Your task to perform on an android device: Show the shopping cart on amazon.com. Add "jbl charge 4" to the cart on amazon.com, then select checkout. Image 0: 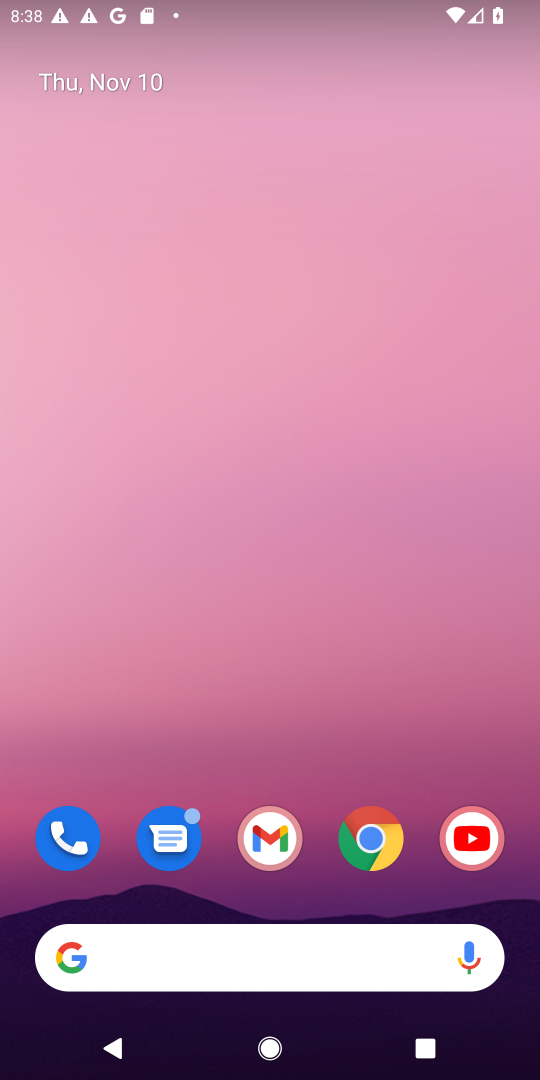
Step 0: drag from (316, 894) to (271, 87)
Your task to perform on an android device: Show the shopping cart on amazon.com. Add "jbl charge 4" to the cart on amazon.com, then select checkout. Image 1: 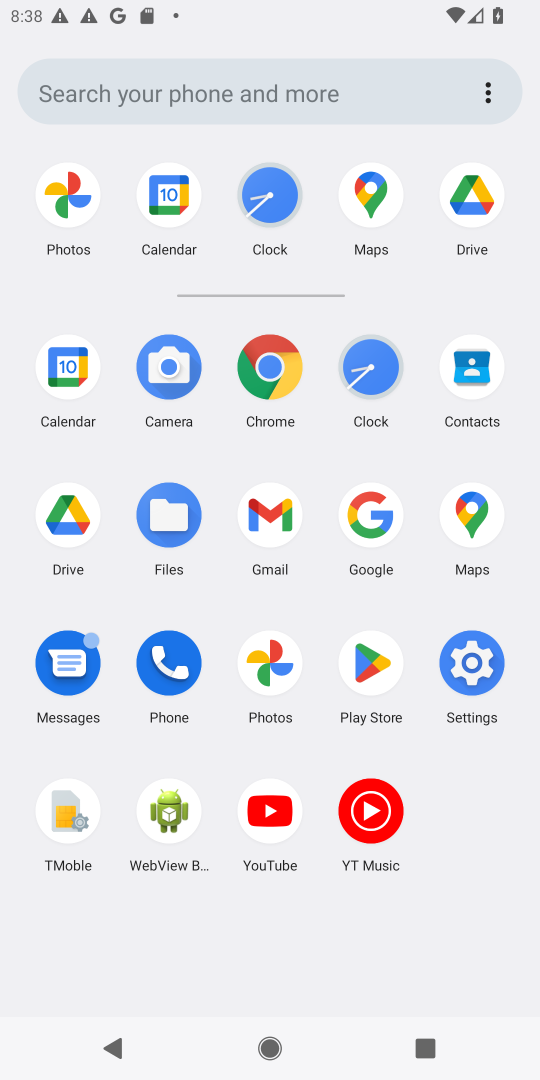
Step 1: click (275, 360)
Your task to perform on an android device: Show the shopping cart on amazon.com. Add "jbl charge 4" to the cart on amazon.com, then select checkout. Image 2: 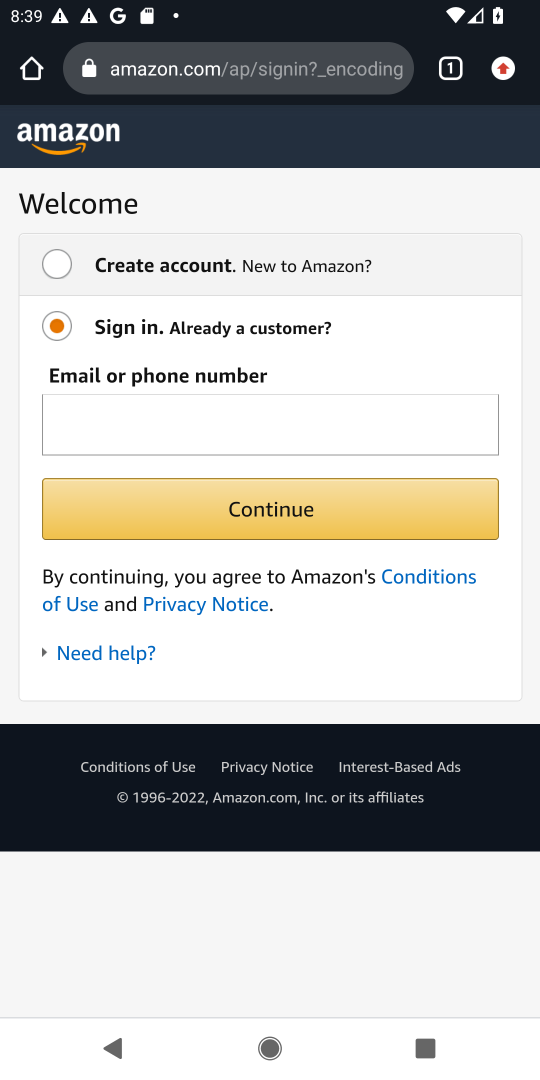
Step 2: click (281, 70)
Your task to perform on an android device: Show the shopping cart on amazon.com. Add "jbl charge 4" to the cart on amazon.com, then select checkout. Image 3: 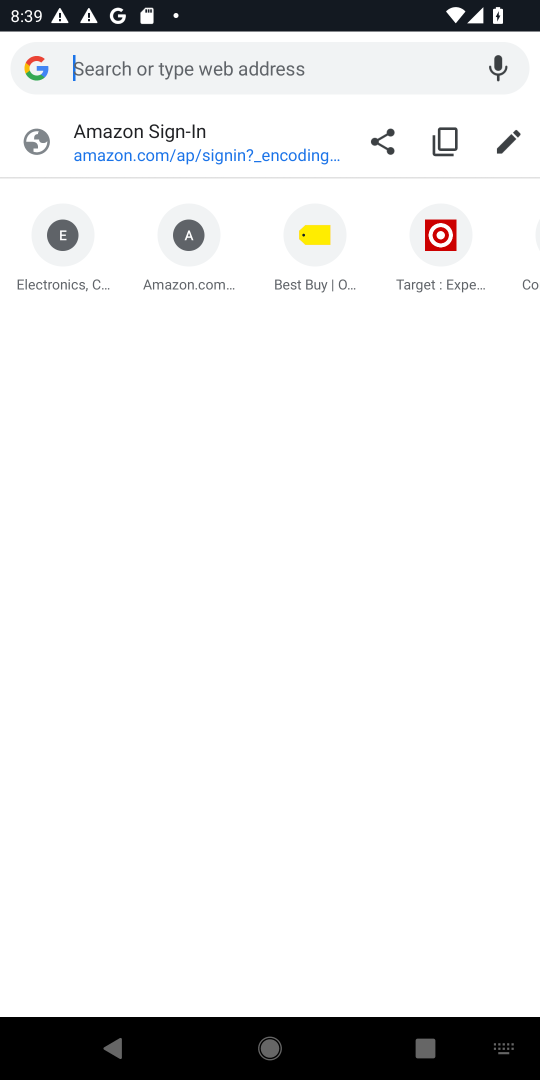
Step 3: type "amazon.com"
Your task to perform on an android device: Show the shopping cart on amazon.com. Add "jbl charge 4" to the cart on amazon.com, then select checkout. Image 4: 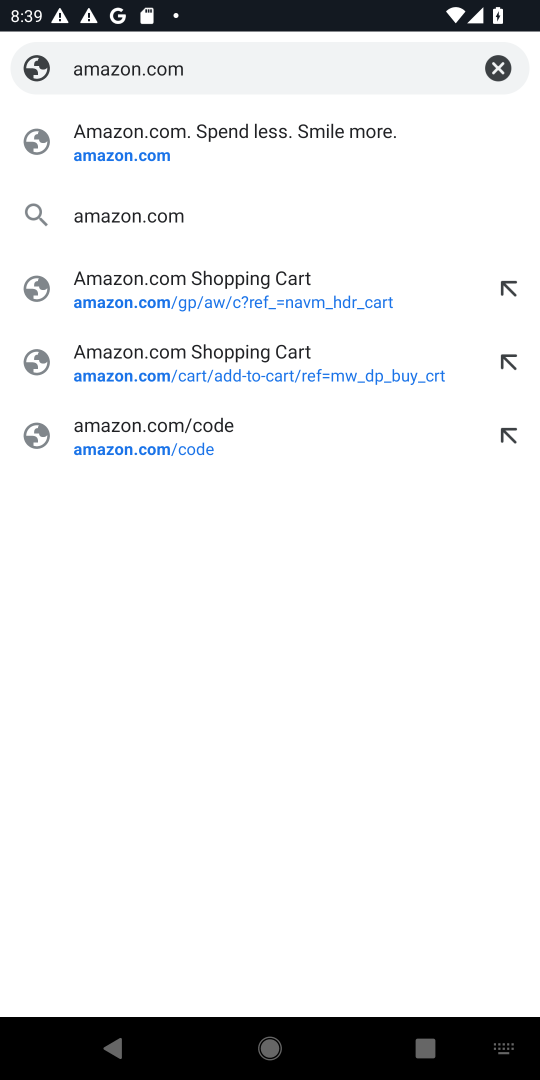
Step 4: press enter
Your task to perform on an android device: Show the shopping cart on amazon.com. Add "jbl charge 4" to the cart on amazon.com, then select checkout. Image 5: 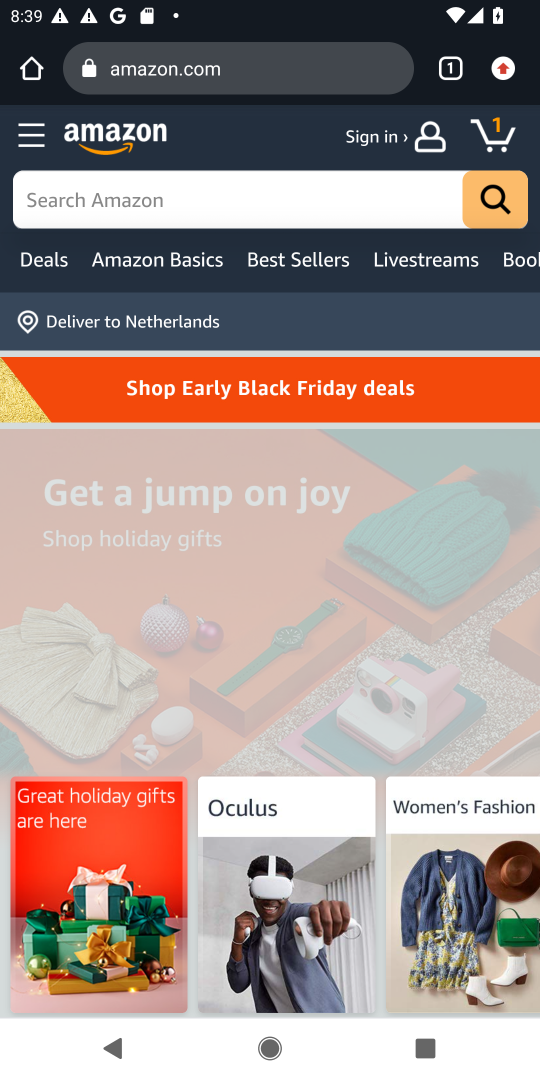
Step 5: click (502, 132)
Your task to perform on an android device: Show the shopping cart on amazon.com. Add "jbl charge 4" to the cart on amazon.com, then select checkout. Image 6: 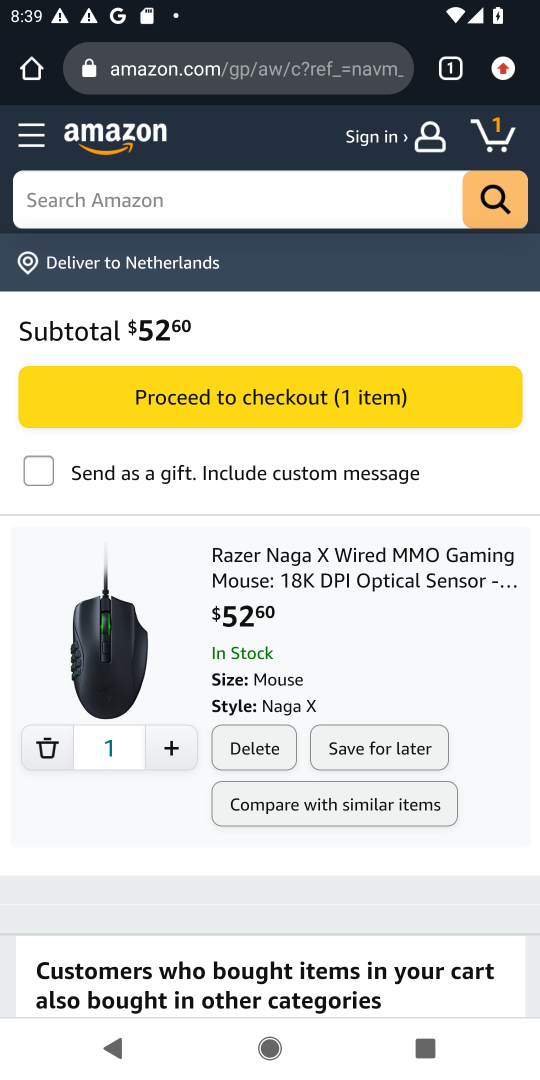
Step 6: click (353, 197)
Your task to perform on an android device: Show the shopping cart on amazon.com. Add "jbl charge 4" to the cart on amazon.com, then select checkout. Image 7: 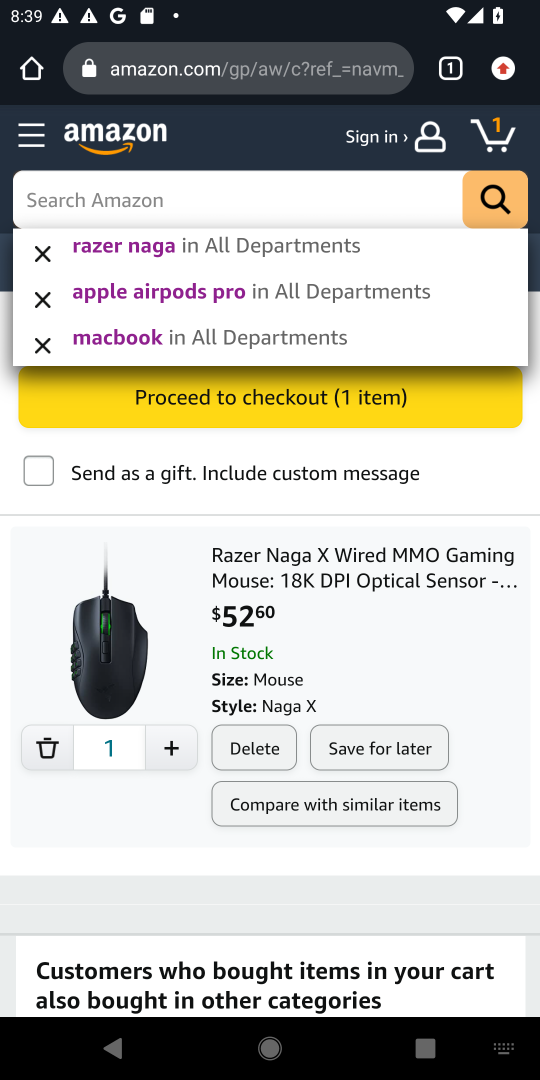
Step 7: type "jbl charge 4"
Your task to perform on an android device: Show the shopping cart on amazon.com. Add "jbl charge 4" to the cart on amazon.com, then select checkout. Image 8: 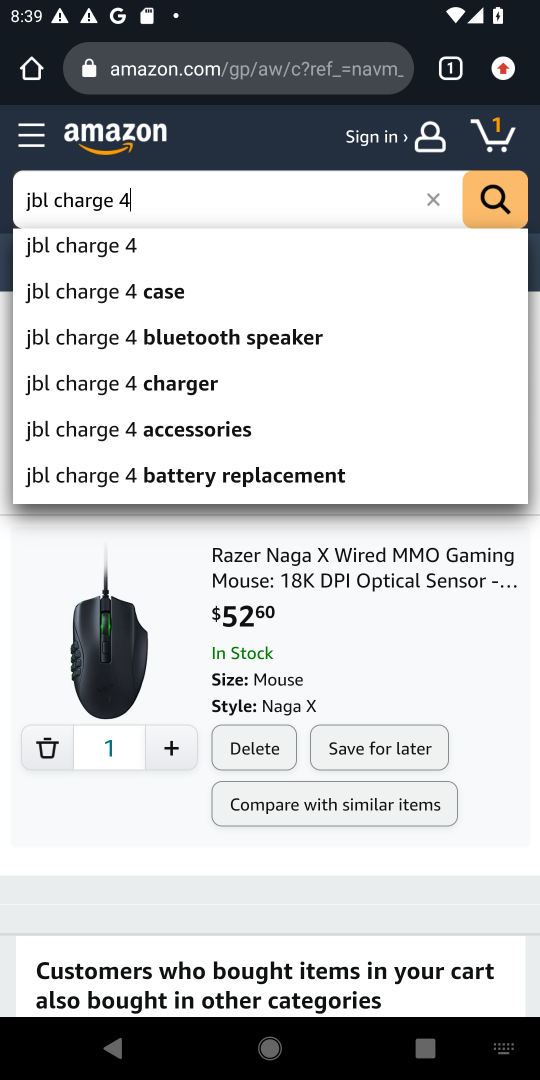
Step 8: press enter
Your task to perform on an android device: Show the shopping cart on amazon.com. Add "jbl charge 4" to the cart on amazon.com, then select checkout. Image 9: 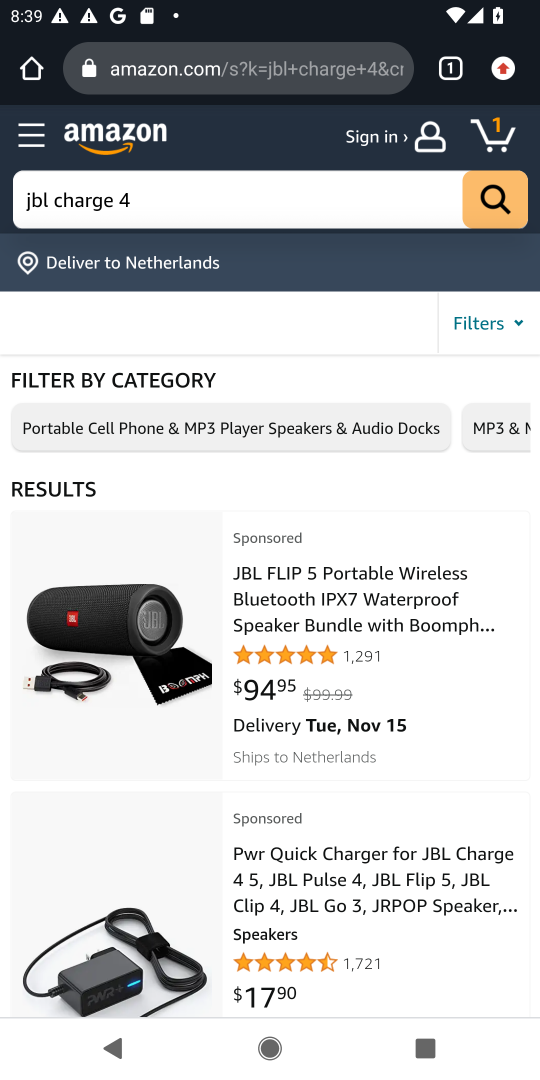
Step 9: drag from (270, 922) to (255, 359)
Your task to perform on an android device: Show the shopping cart on amazon.com. Add "jbl charge 4" to the cart on amazon.com, then select checkout. Image 10: 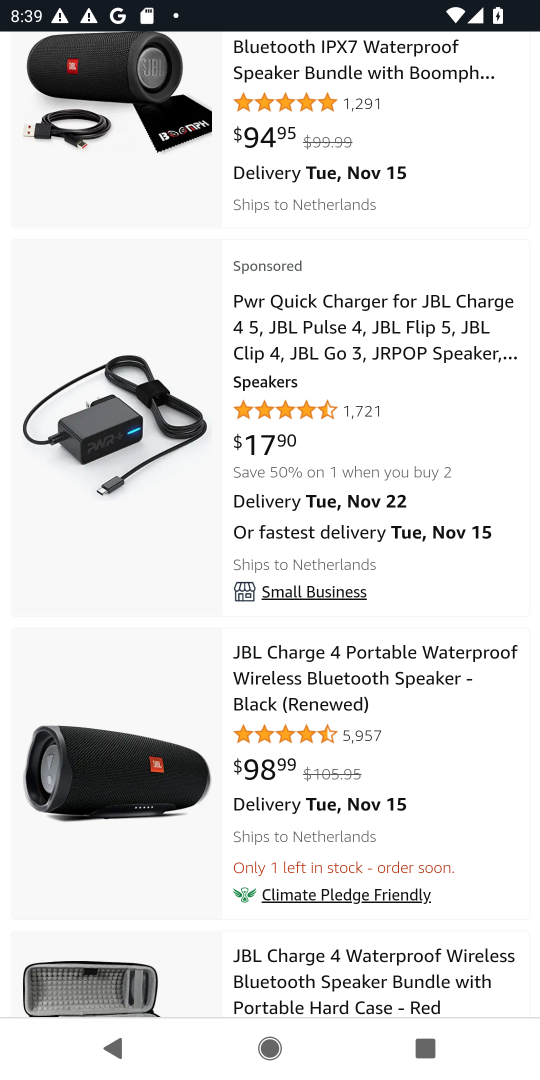
Step 10: click (322, 706)
Your task to perform on an android device: Show the shopping cart on amazon.com. Add "jbl charge 4" to the cart on amazon.com, then select checkout. Image 11: 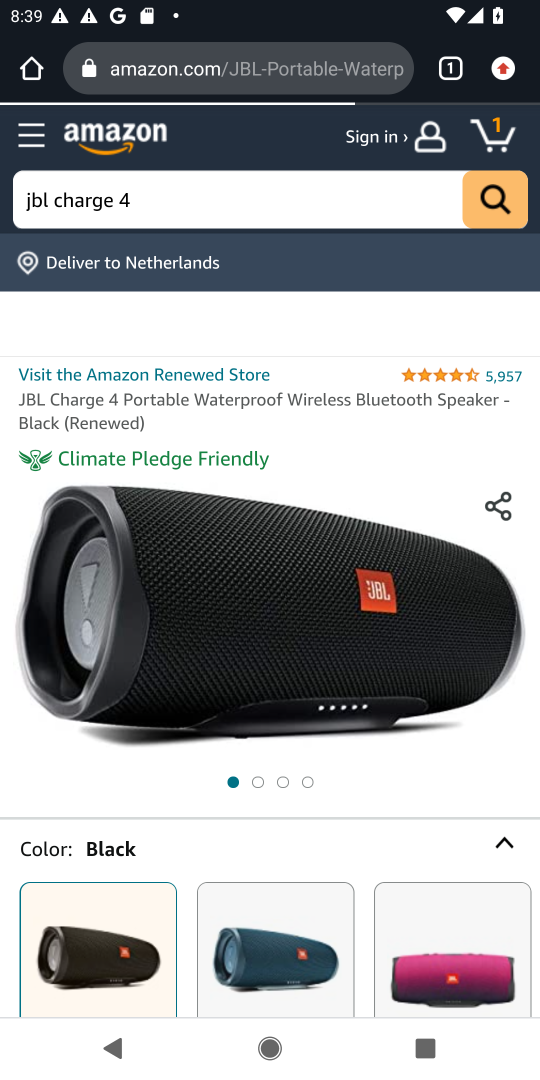
Step 11: drag from (347, 885) to (371, 346)
Your task to perform on an android device: Show the shopping cart on amazon.com. Add "jbl charge 4" to the cart on amazon.com, then select checkout. Image 12: 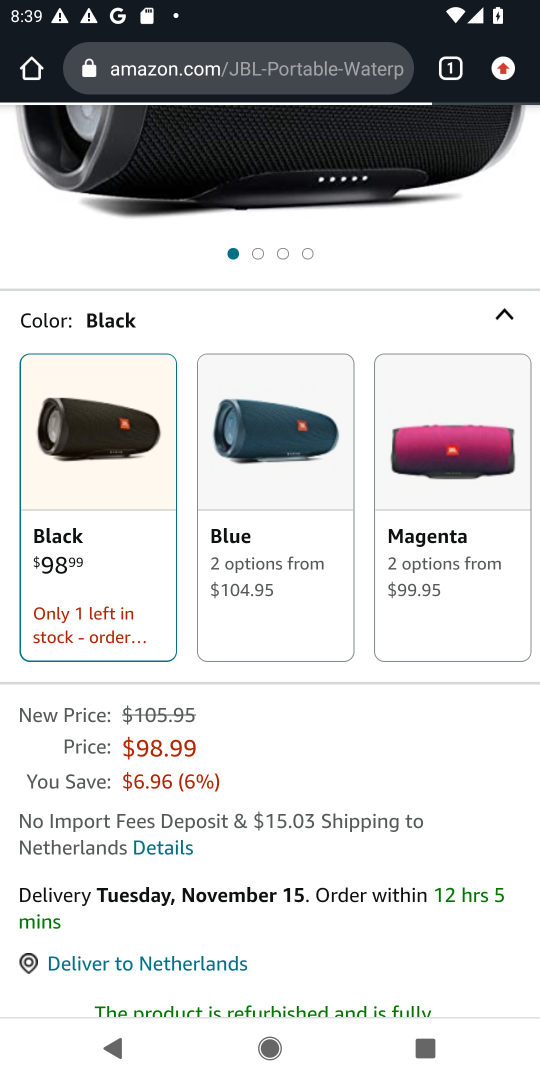
Step 12: drag from (227, 933) to (305, 390)
Your task to perform on an android device: Show the shopping cart on amazon.com. Add "jbl charge 4" to the cart on amazon.com, then select checkout. Image 13: 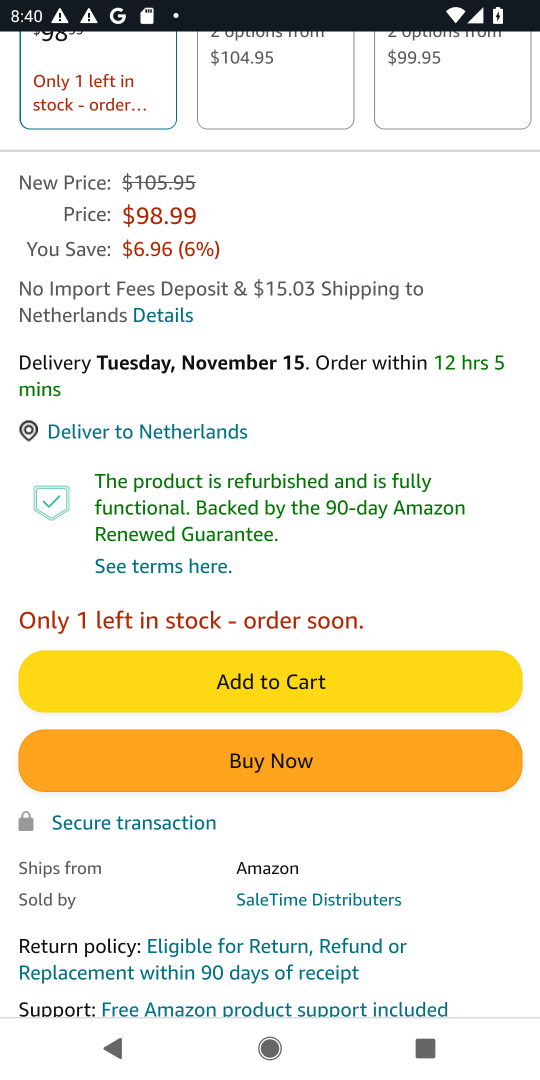
Step 13: click (280, 668)
Your task to perform on an android device: Show the shopping cart on amazon.com. Add "jbl charge 4" to the cart on amazon.com, then select checkout. Image 14: 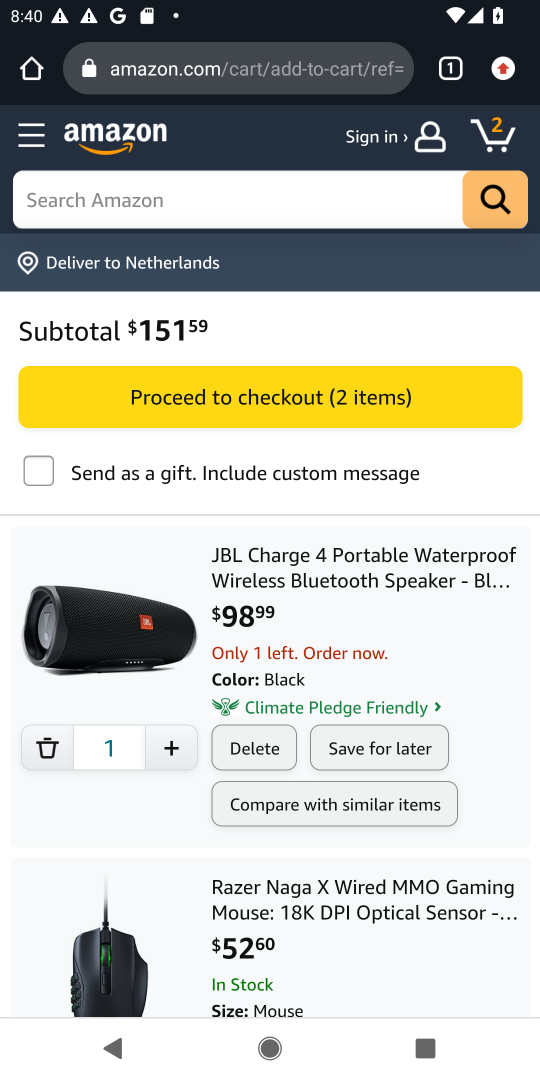
Step 14: click (412, 406)
Your task to perform on an android device: Show the shopping cart on amazon.com. Add "jbl charge 4" to the cart on amazon.com, then select checkout. Image 15: 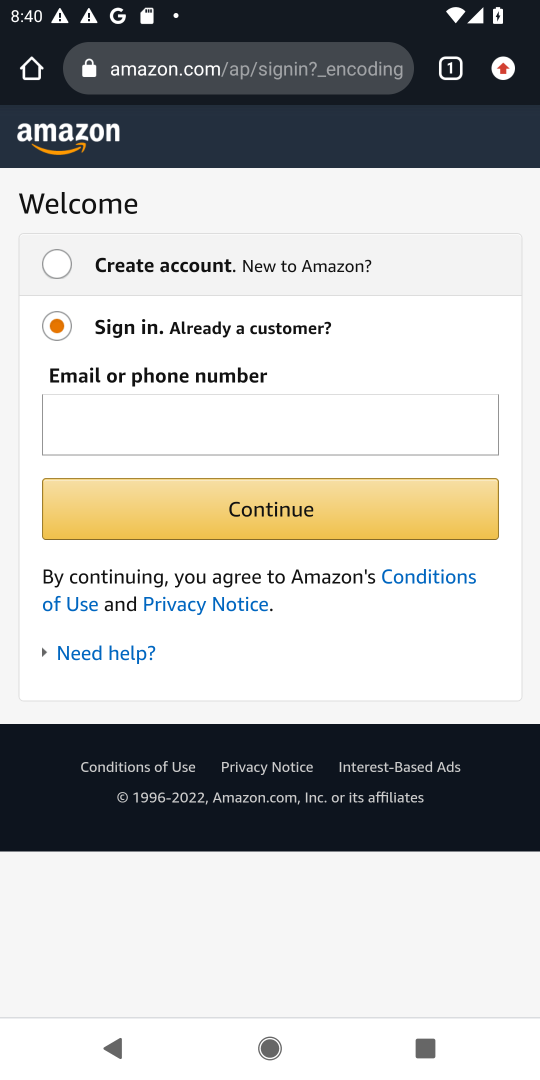
Step 15: task complete